Your task to perform on an android device: find photos in the google photos app Image 0: 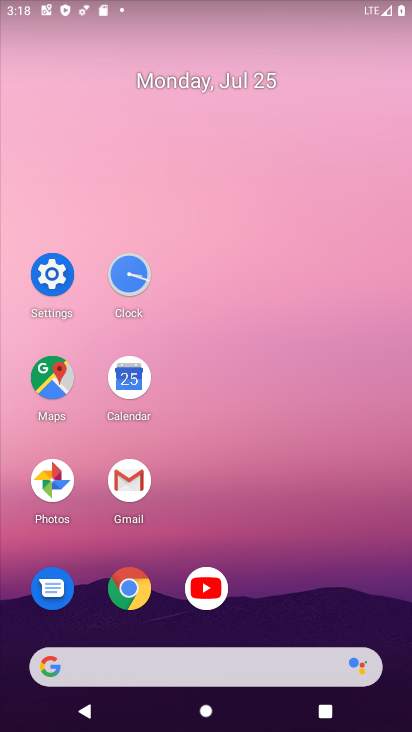
Step 0: click (43, 484)
Your task to perform on an android device: find photos in the google photos app Image 1: 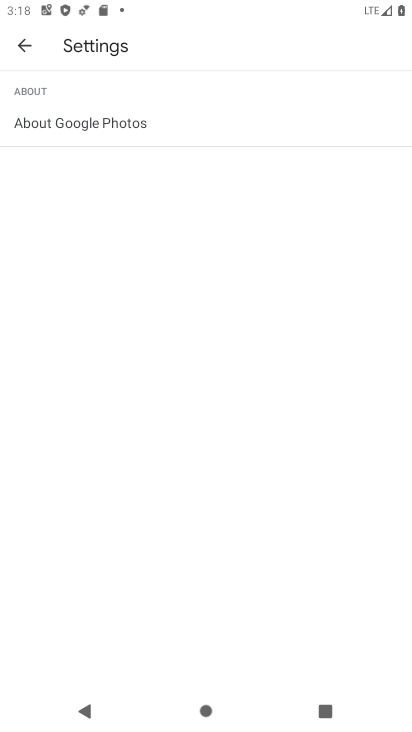
Step 1: click (23, 36)
Your task to perform on an android device: find photos in the google photos app Image 2: 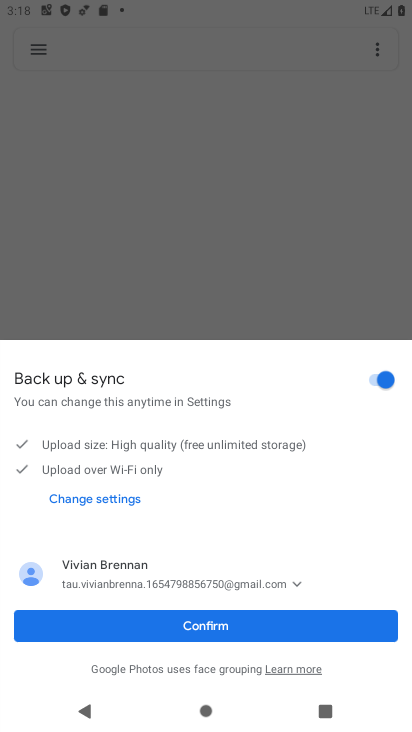
Step 2: click (111, 57)
Your task to perform on an android device: find photos in the google photos app Image 3: 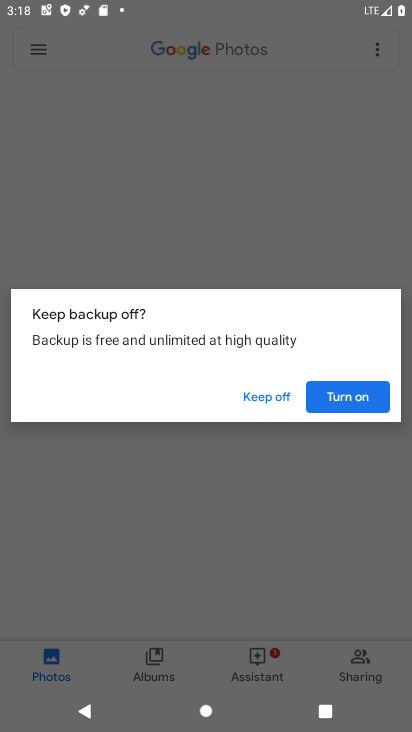
Step 3: click (337, 398)
Your task to perform on an android device: find photos in the google photos app Image 4: 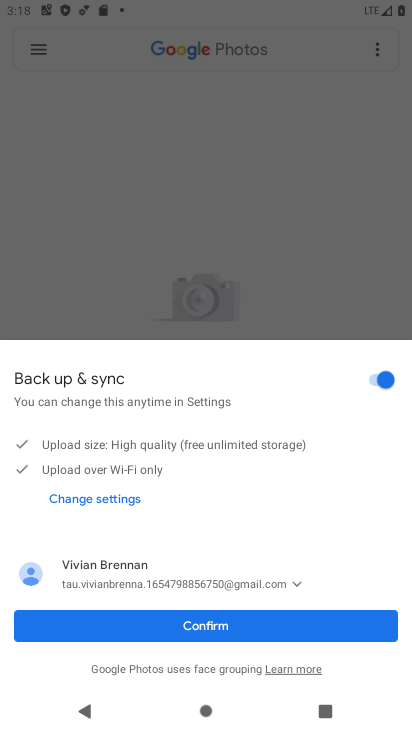
Step 4: click (203, 624)
Your task to perform on an android device: find photos in the google photos app Image 5: 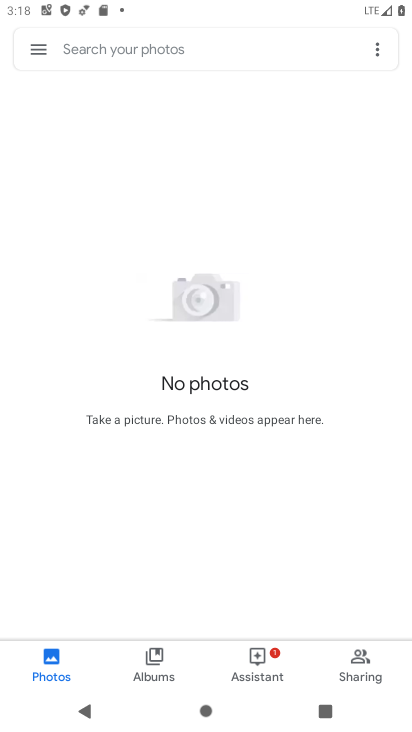
Step 5: click (159, 48)
Your task to perform on an android device: find photos in the google photos app Image 6: 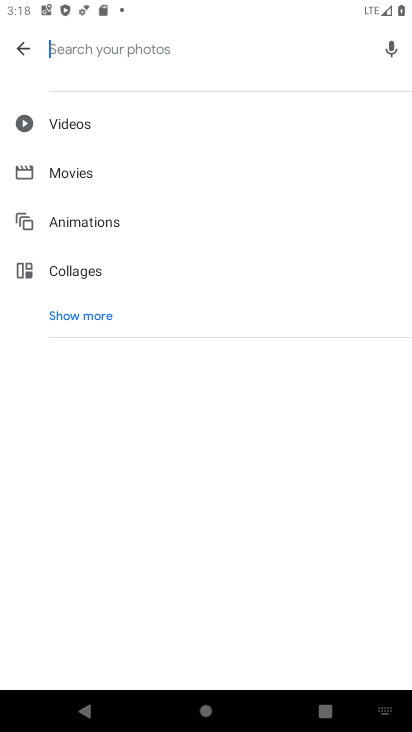
Step 6: task complete